Your task to perform on an android device: Go to accessibility settings Image 0: 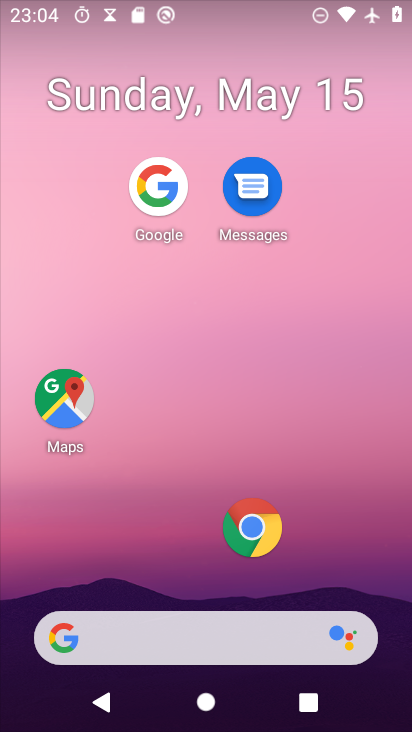
Step 0: press home button
Your task to perform on an android device: Go to accessibility settings Image 1: 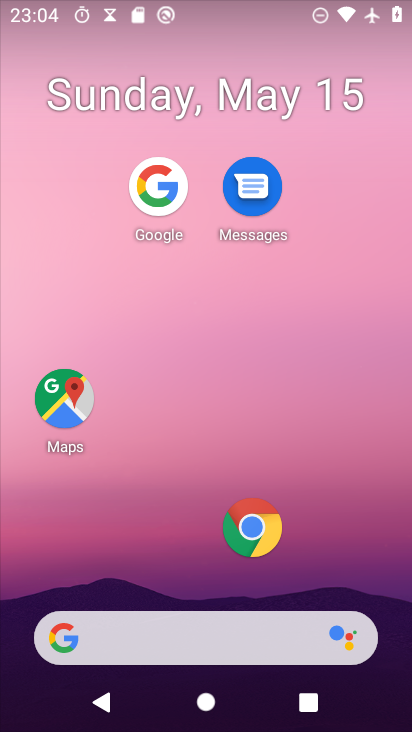
Step 1: drag from (130, 639) to (291, 121)
Your task to perform on an android device: Go to accessibility settings Image 2: 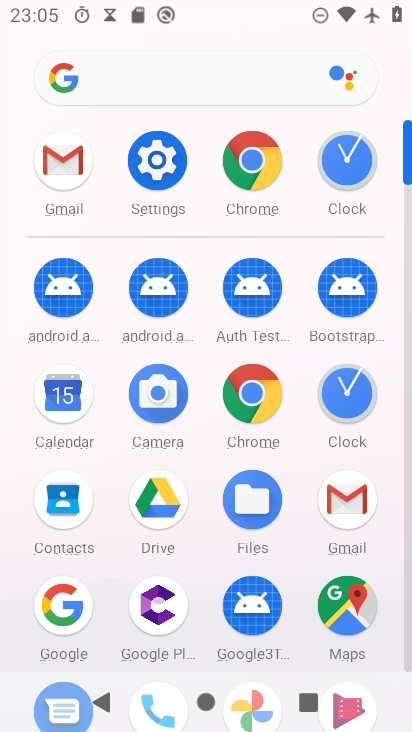
Step 2: click (158, 171)
Your task to perform on an android device: Go to accessibility settings Image 3: 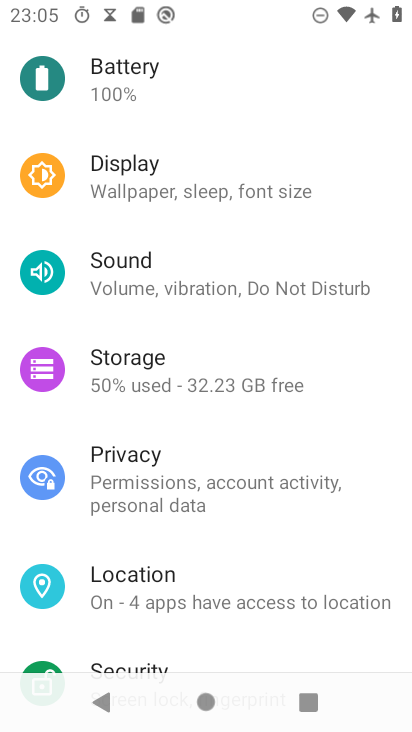
Step 3: drag from (219, 583) to (320, 96)
Your task to perform on an android device: Go to accessibility settings Image 4: 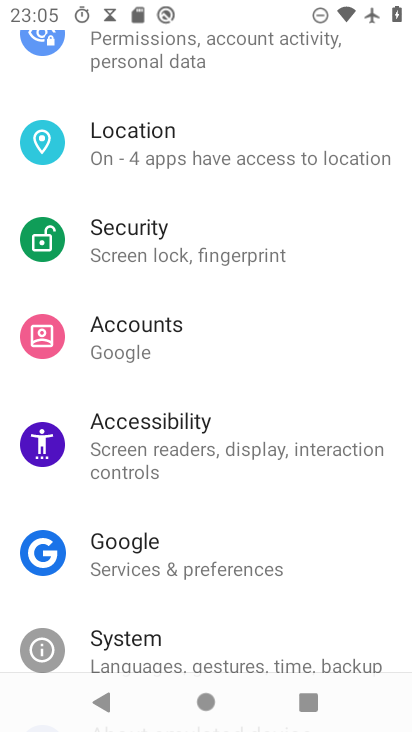
Step 4: click (192, 435)
Your task to perform on an android device: Go to accessibility settings Image 5: 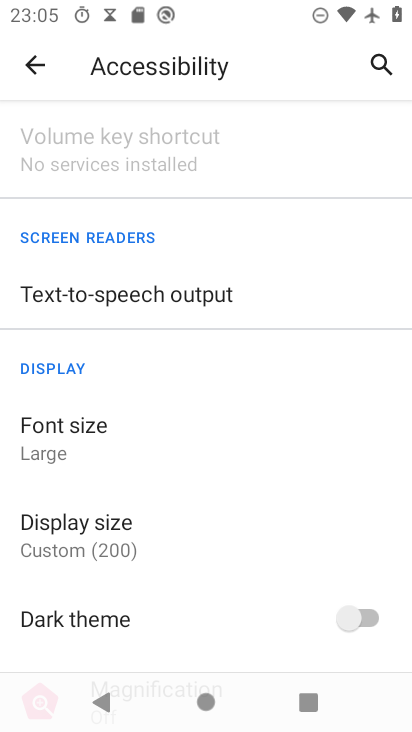
Step 5: task complete